Your task to perform on an android device: Search for "panasonic triple a" on amazon, select the first entry, add it to the cart, then select checkout. Image 0: 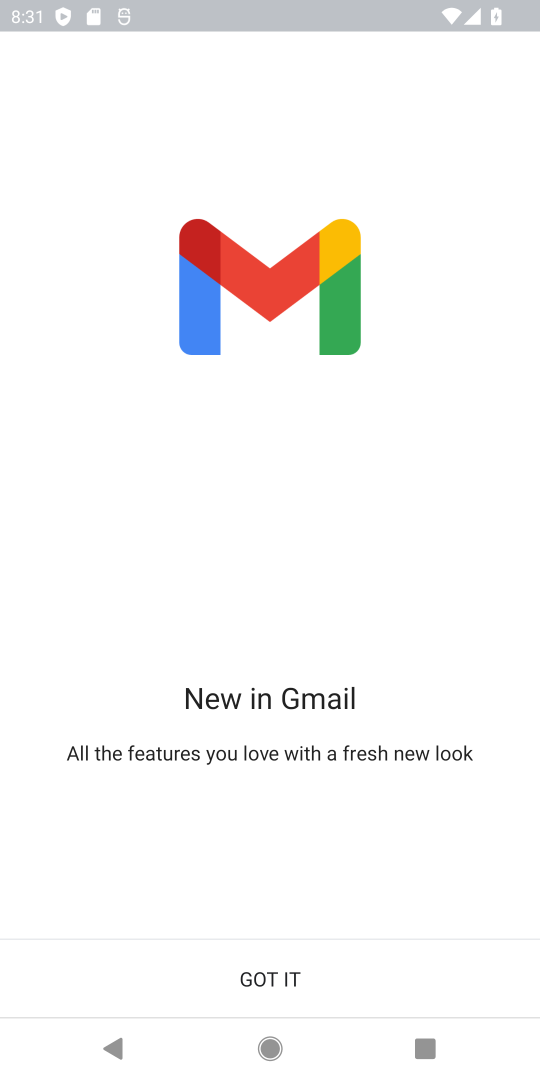
Step 0: press home button
Your task to perform on an android device: Search for "panasonic triple a" on amazon, select the first entry, add it to the cart, then select checkout. Image 1: 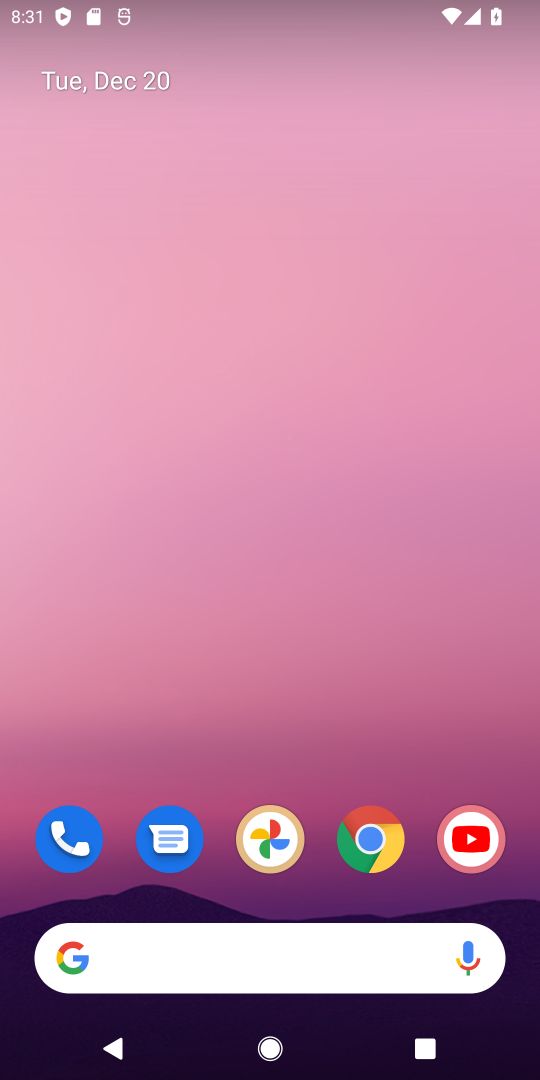
Step 1: click (218, 946)
Your task to perform on an android device: Search for "panasonic triple a" on amazon, select the first entry, add it to the cart, then select checkout. Image 2: 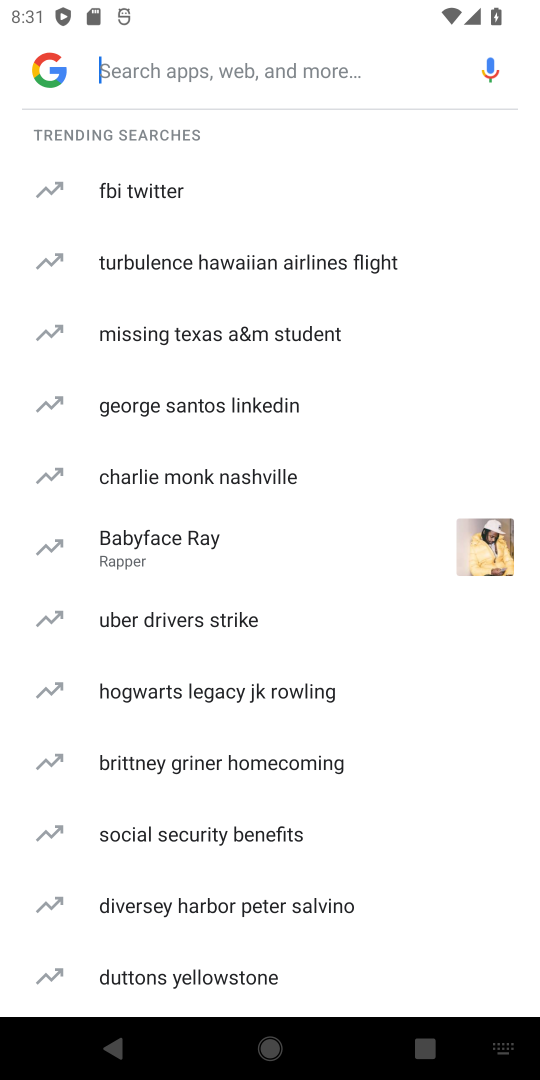
Step 2: type "amazon"
Your task to perform on an android device: Search for "panasonic triple a" on amazon, select the first entry, add it to the cart, then select checkout. Image 3: 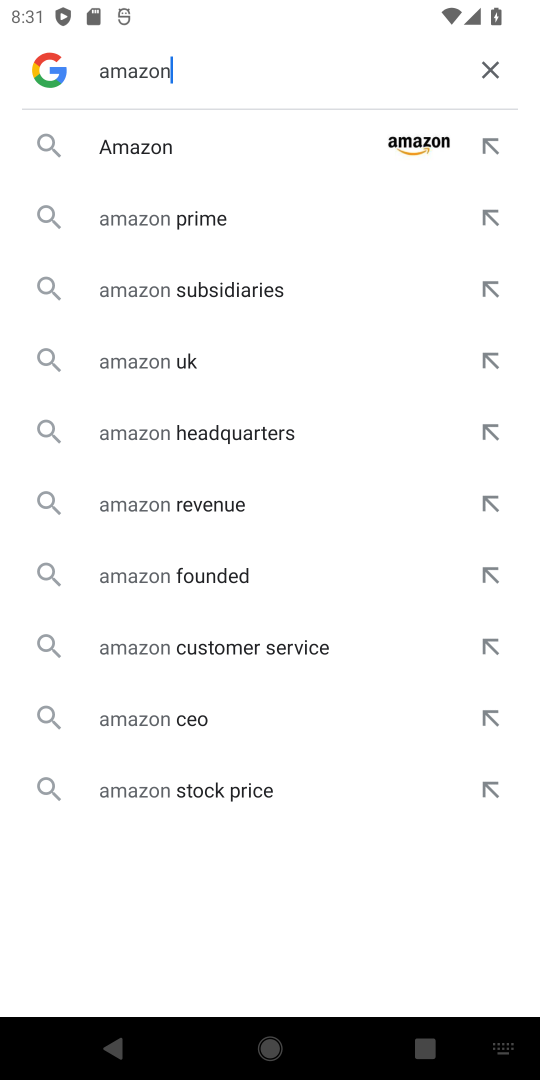
Step 3: click (313, 152)
Your task to perform on an android device: Search for "panasonic triple a" on amazon, select the first entry, add it to the cart, then select checkout. Image 4: 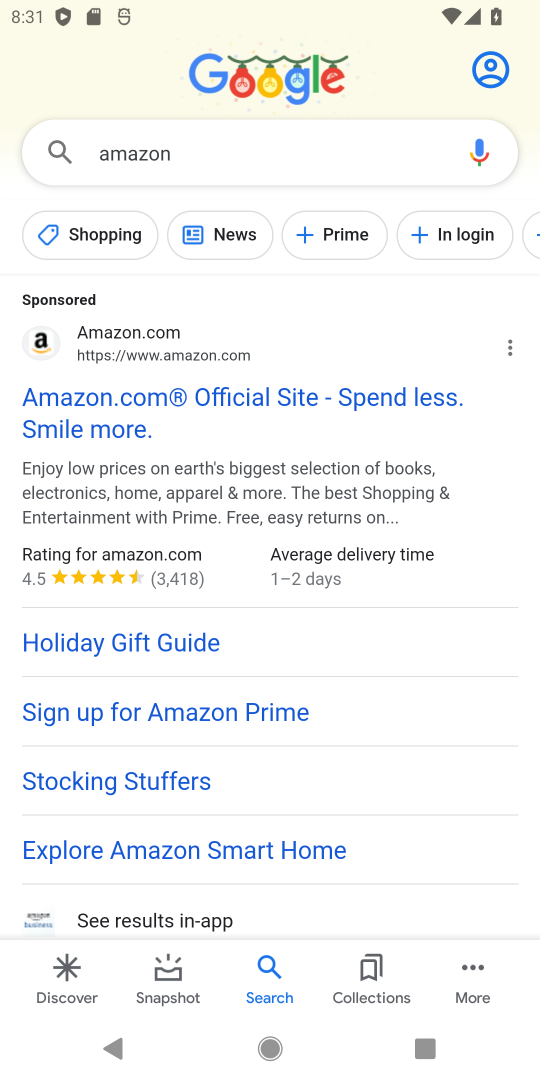
Step 4: click (107, 404)
Your task to perform on an android device: Search for "panasonic triple a" on amazon, select the first entry, add it to the cart, then select checkout. Image 5: 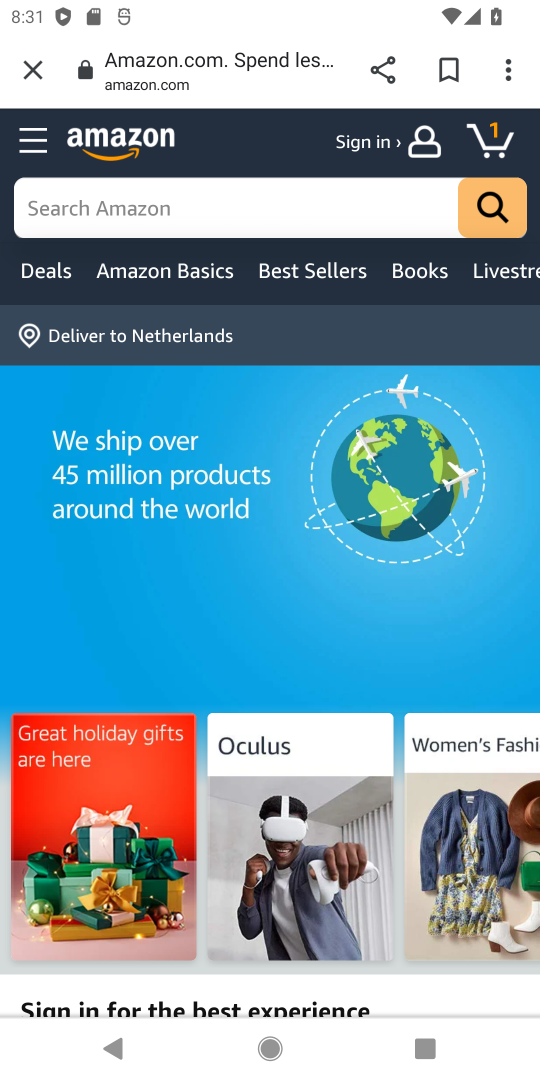
Step 5: click (158, 202)
Your task to perform on an android device: Search for "panasonic triple a" on amazon, select the first entry, add it to the cart, then select checkout. Image 6: 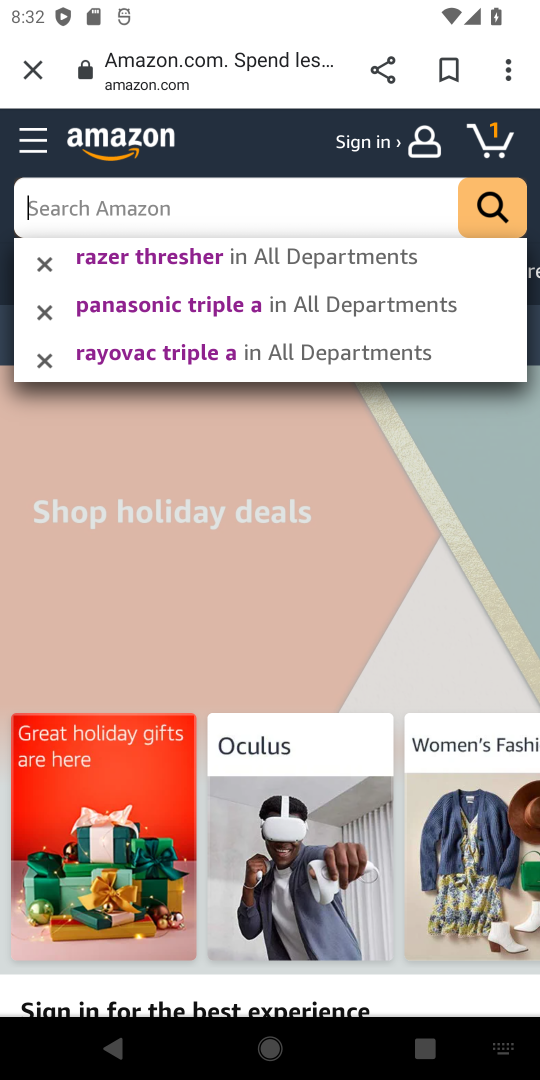
Step 6: type "panasonic triple a"
Your task to perform on an android device: Search for "panasonic triple a" on amazon, select the first entry, add it to the cart, then select checkout. Image 7: 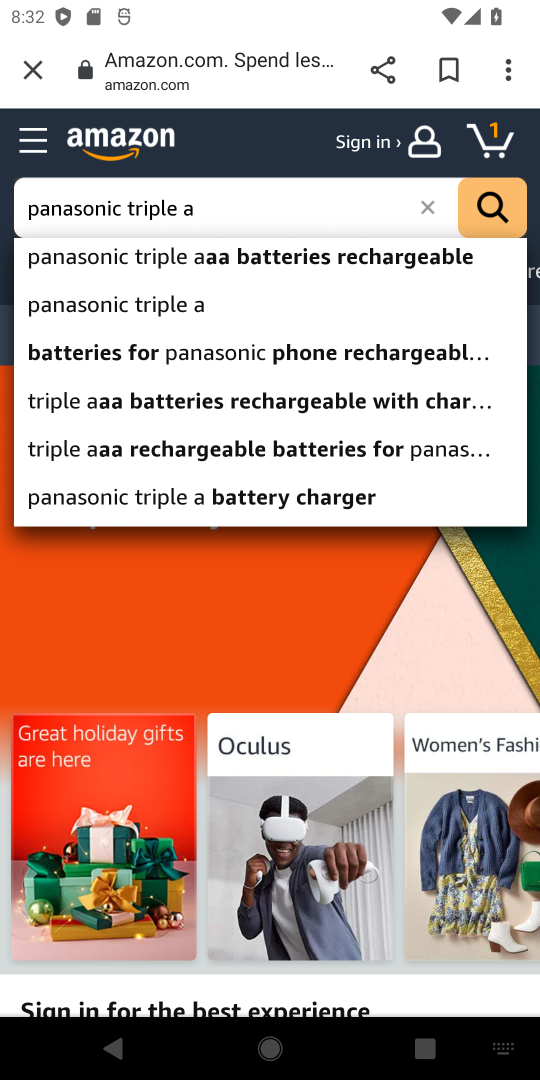
Step 7: click (154, 291)
Your task to perform on an android device: Search for "panasonic triple a" on amazon, select the first entry, add it to the cart, then select checkout. Image 8: 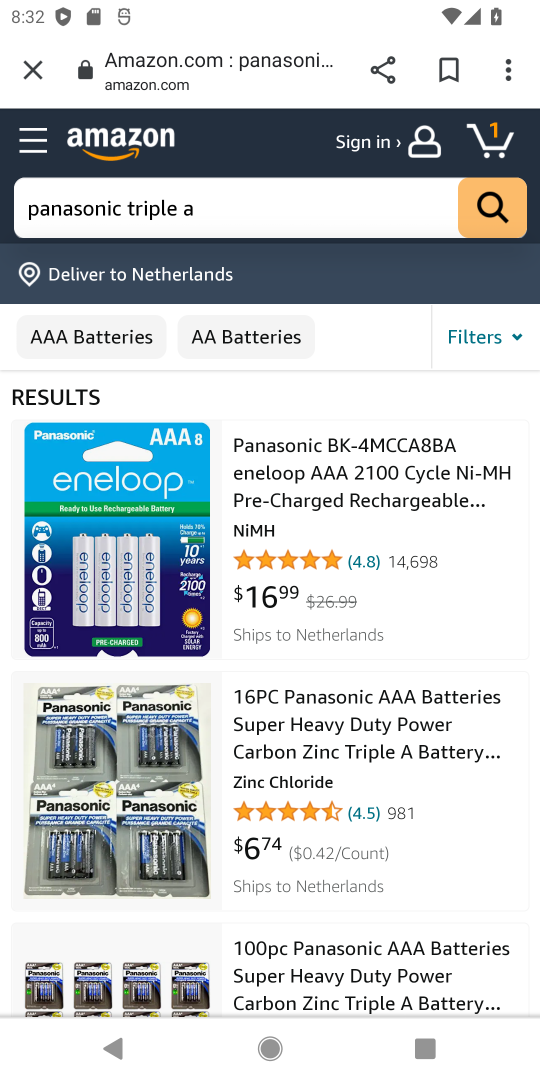
Step 8: click (328, 504)
Your task to perform on an android device: Search for "panasonic triple a" on amazon, select the first entry, add it to the cart, then select checkout. Image 9: 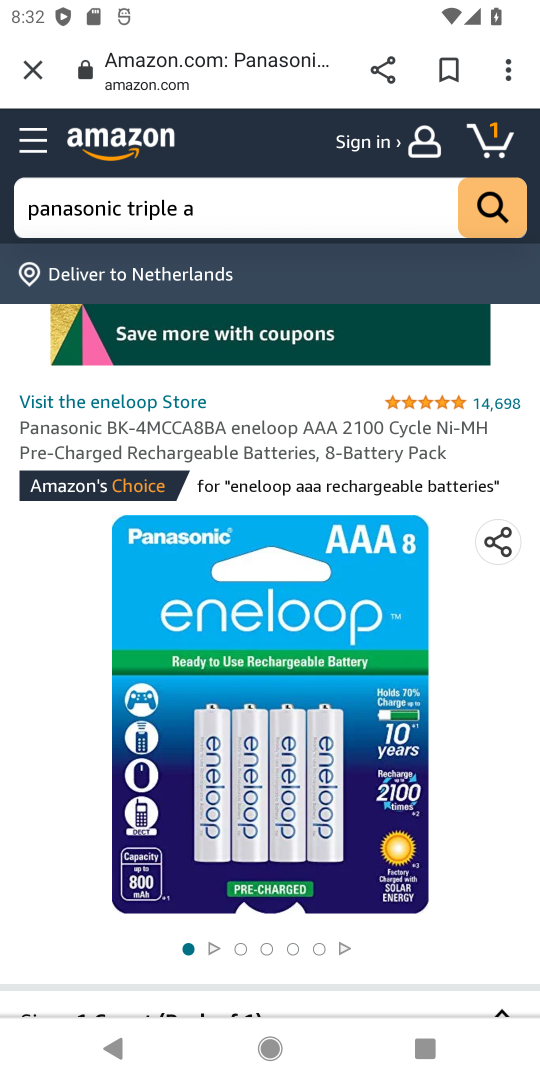
Step 9: drag from (325, 757) to (363, 488)
Your task to perform on an android device: Search for "panasonic triple a" on amazon, select the first entry, add it to the cart, then select checkout. Image 10: 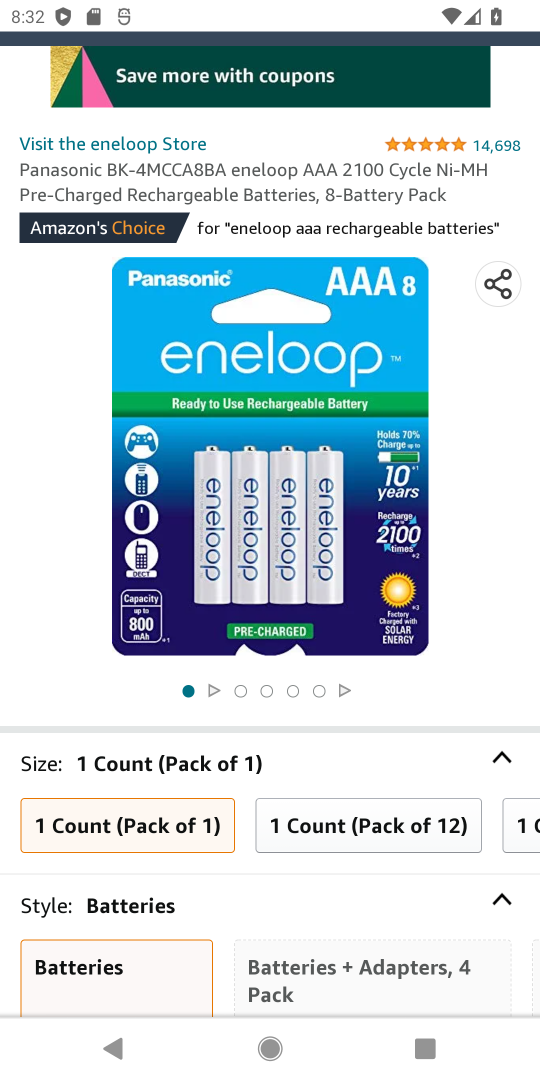
Step 10: drag from (338, 818) to (334, 647)
Your task to perform on an android device: Search for "panasonic triple a" on amazon, select the first entry, add it to the cart, then select checkout. Image 11: 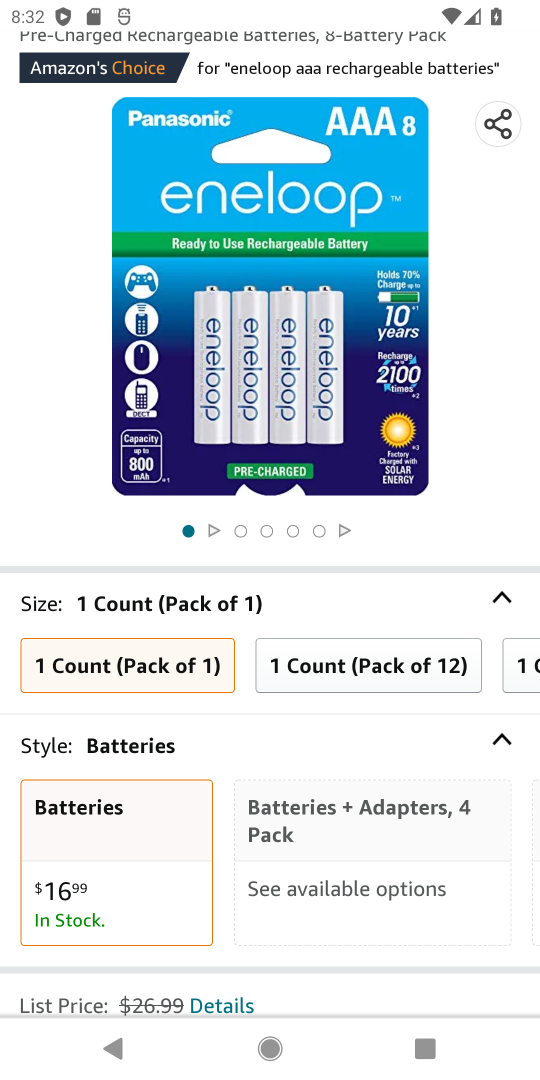
Step 11: drag from (297, 817) to (264, 437)
Your task to perform on an android device: Search for "panasonic triple a" on amazon, select the first entry, add it to the cart, then select checkout. Image 12: 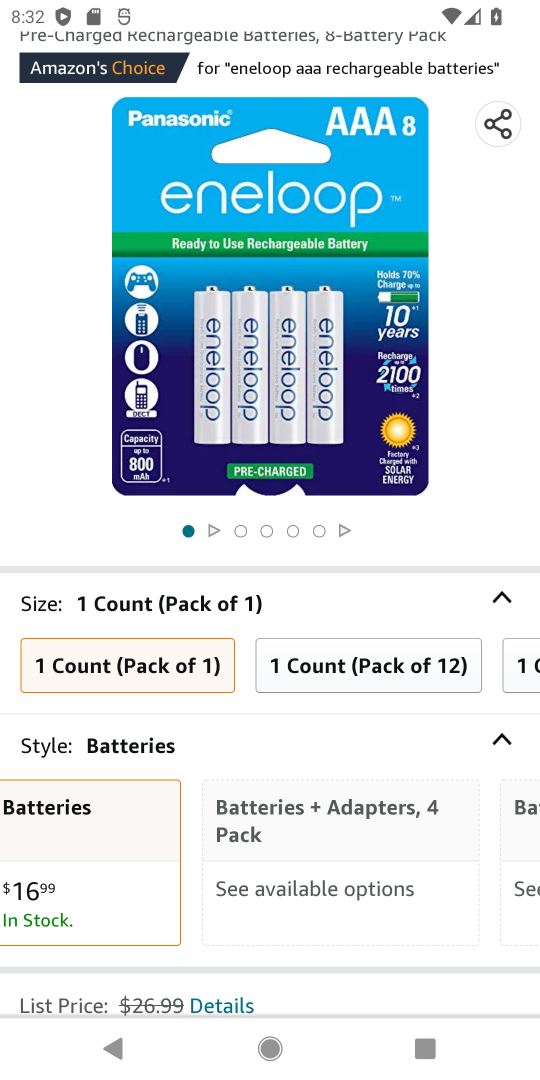
Step 12: drag from (271, 919) to (298, 499)
Your task to perform on an android device: Search for "panasonic triple a" on amazon, select the first entry, add it to the cart, then select checkout. Image 13: 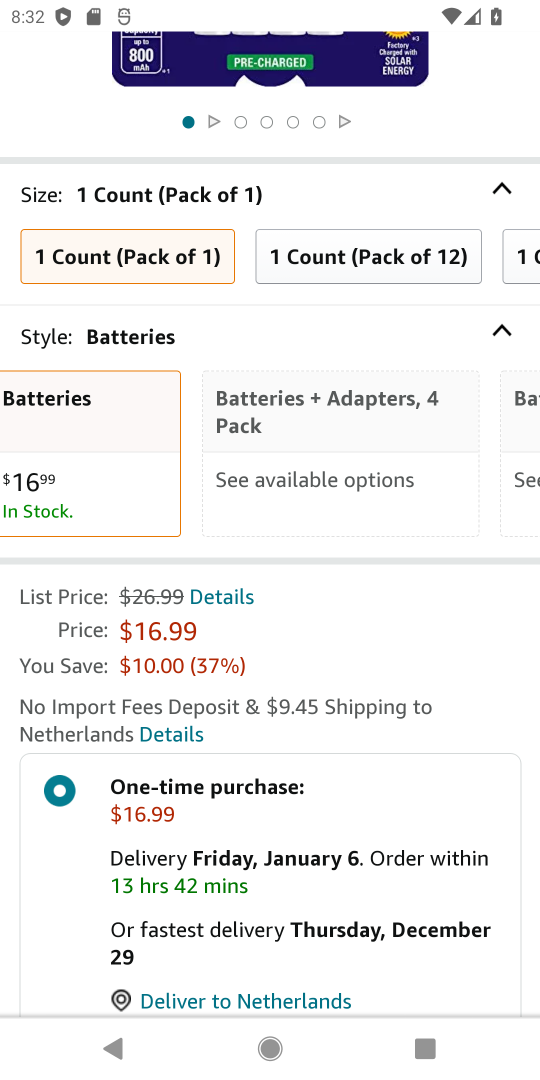
Step 13: drag from (316, 673) to (309, 431)
Your task to perform on an android device: Search for "panasonic triple a" on amazon, select the first entry, add it to the cart, then select checkout. Image 14: 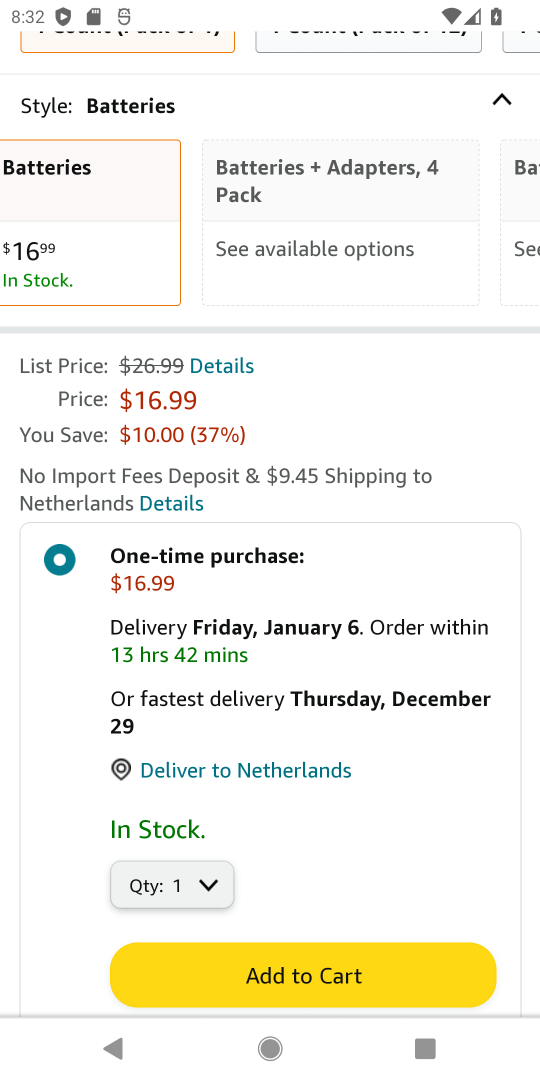
Step 14: click (272, 968)
Your task to perform on an android device: Search for "panasonic triple a" on amazon, select the first entry, add it to the cart, then select checkout. Image 15: 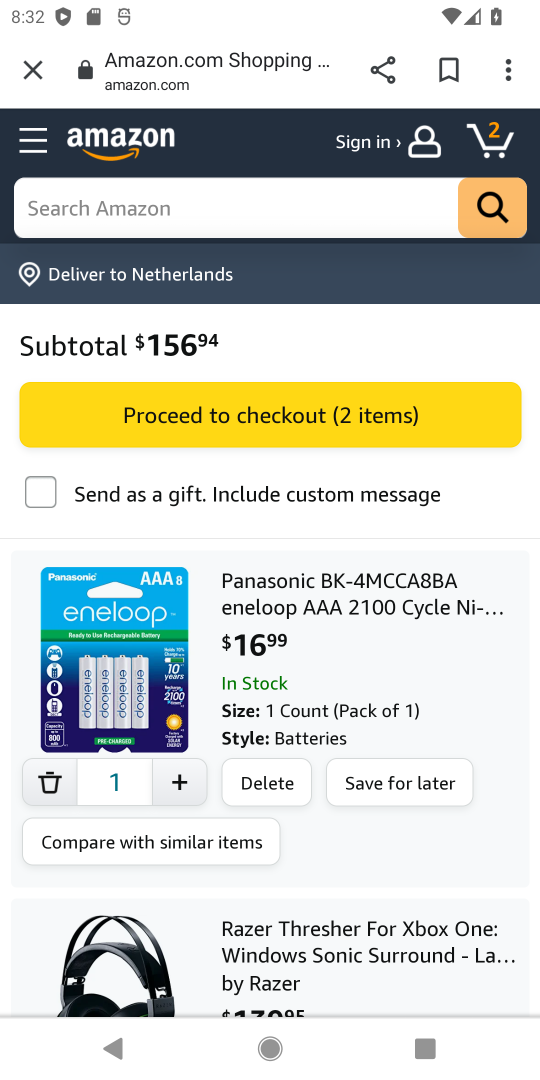
Step 15: click (284, 403)
Your task to perform on an android device: Search for "panasonic triple a" on amazon, select the first entry, add it to the cart, then select checkout. Image 16: 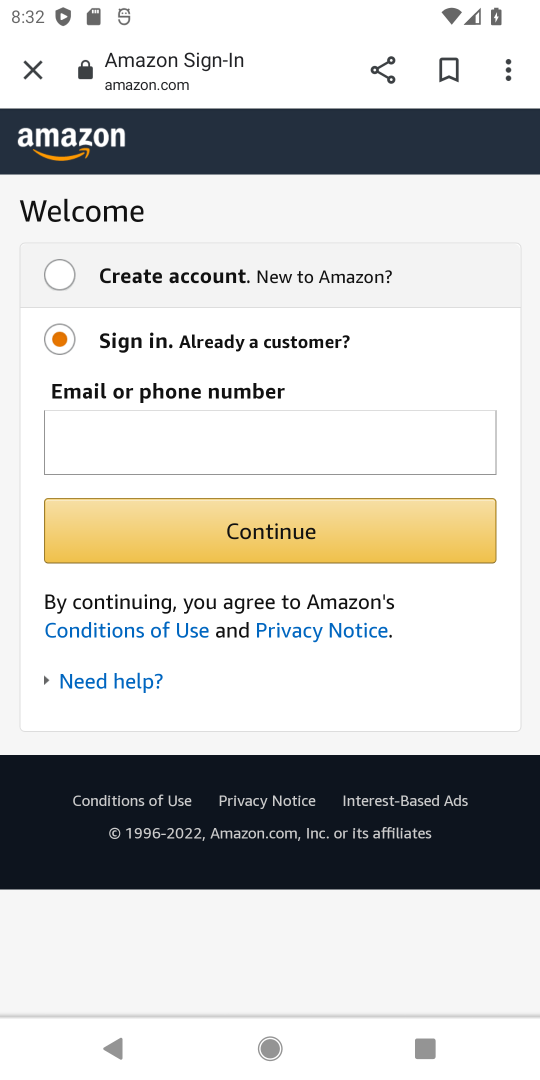
Step 16: task complete